Your task to perform on an android device: Empty the shopping cart on amazon.com. Image 0: 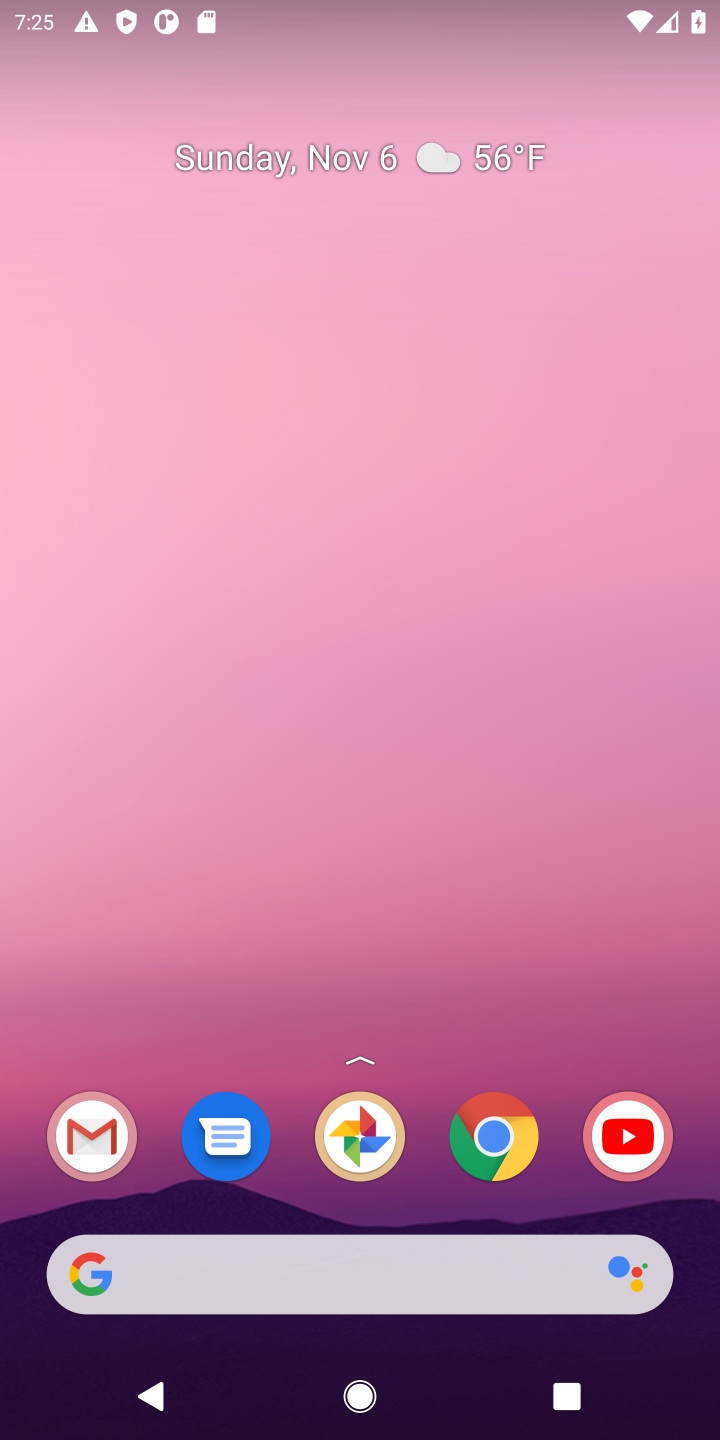
Step 0: click (383, 1296)
Your task to perform on an android device: Empty the shopping cart on amazon.com. Image 1: 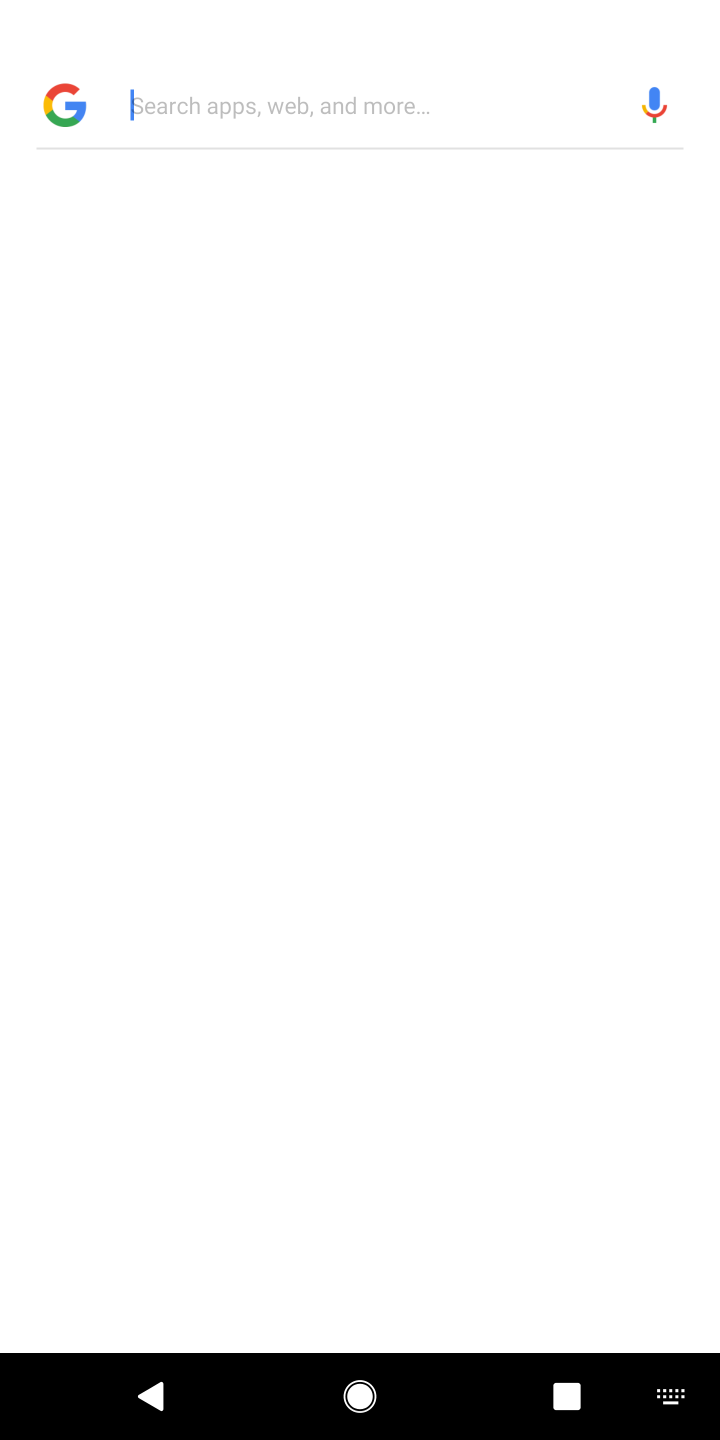
Step 1: task complete